Your task to perform on an android device: View the shopping cart on target.com. Search for duracell triple a on target.com, select the first entry, and add it to the cart. Image 0: 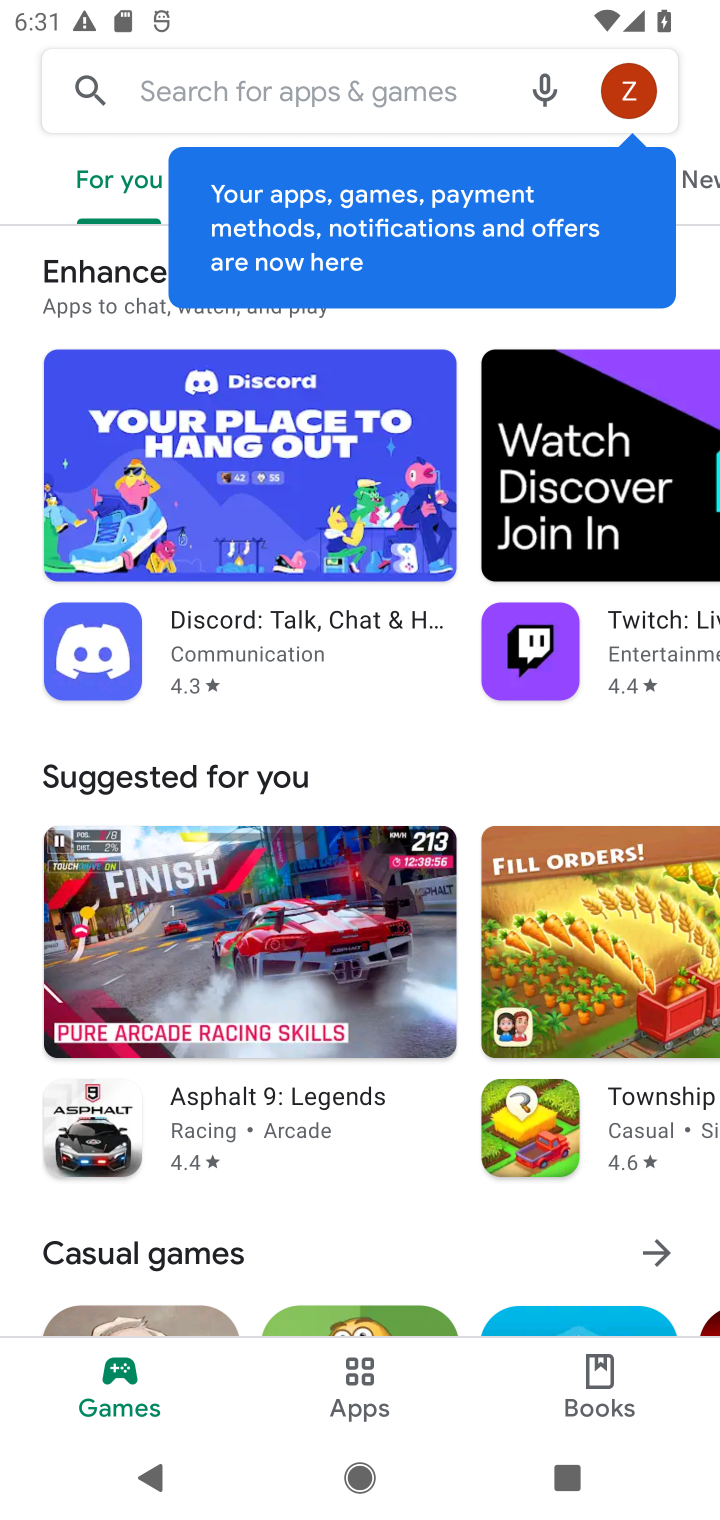
Step 0: press home button
Your task to perform on an android device: View the shopping cart on target.com. Search for duracell triple a on target.com, select the first entry, and add it to the cart. Image 1: 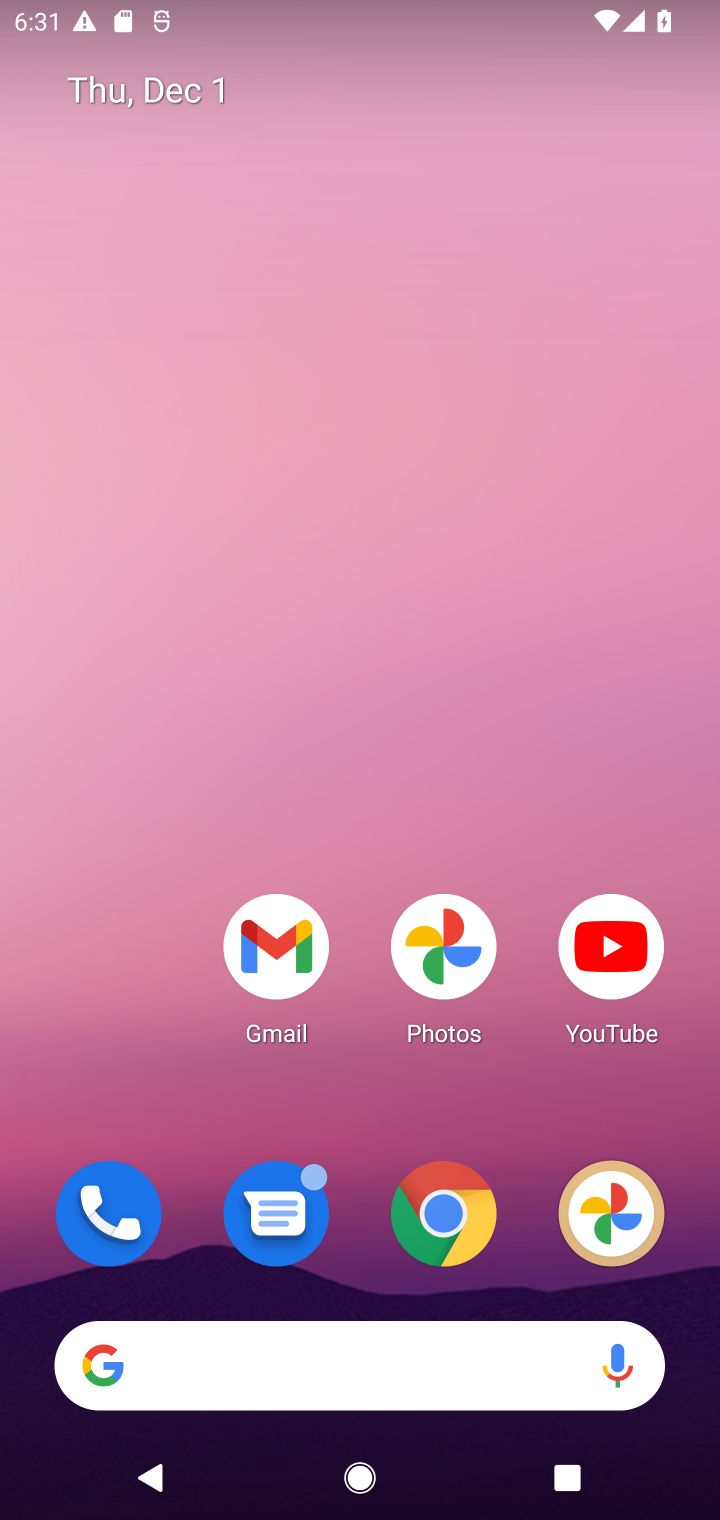
Step 1: click (371, 1372)
Your task to perform on an android device: View the shopping cart on target.com. Search for duracell triple a on target.com, select the first entry, and add it to the cart. Image 2: 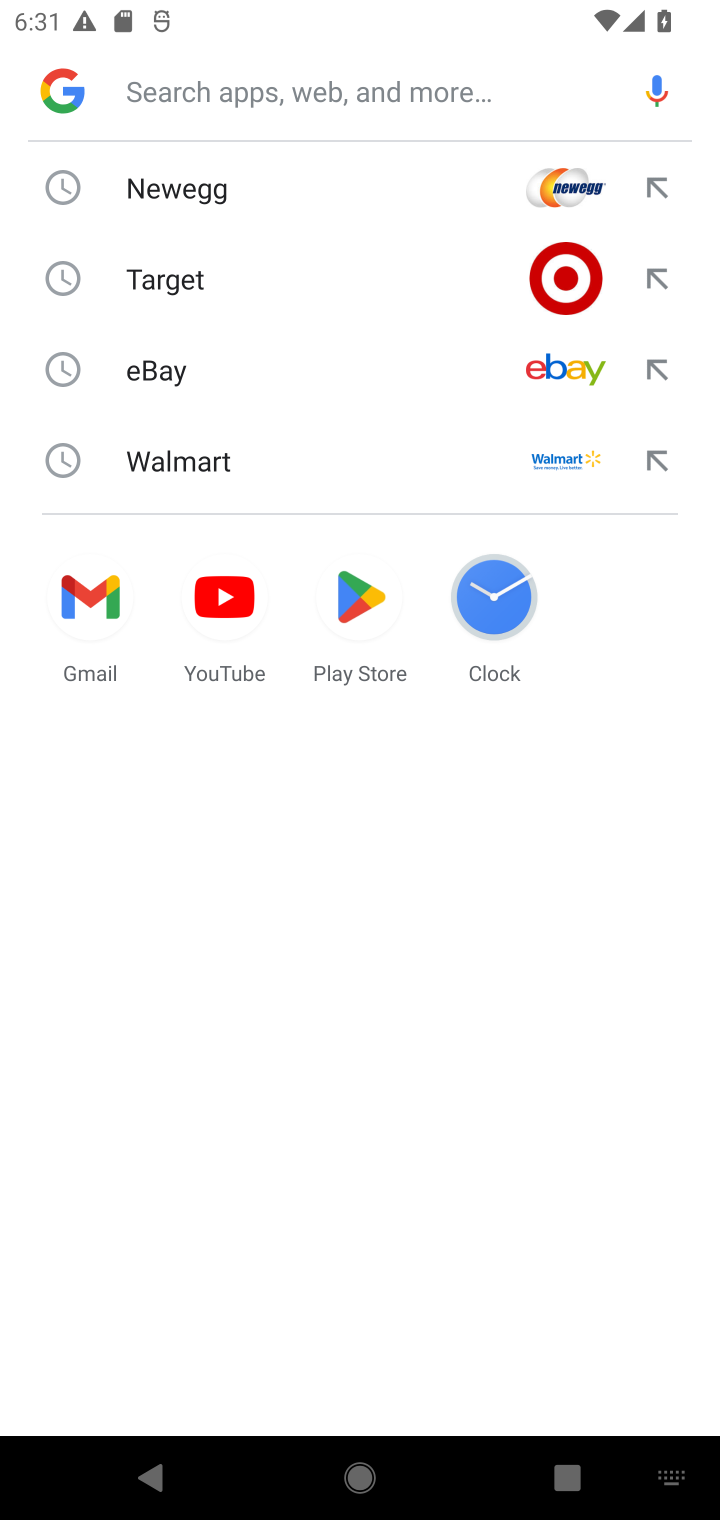
Step 2: type "target"
Your task to perform on an android device: View the shopping cart on target.com. Search for duracell triple a on target.com, select the first entry, and add it to the cart. Image 3: 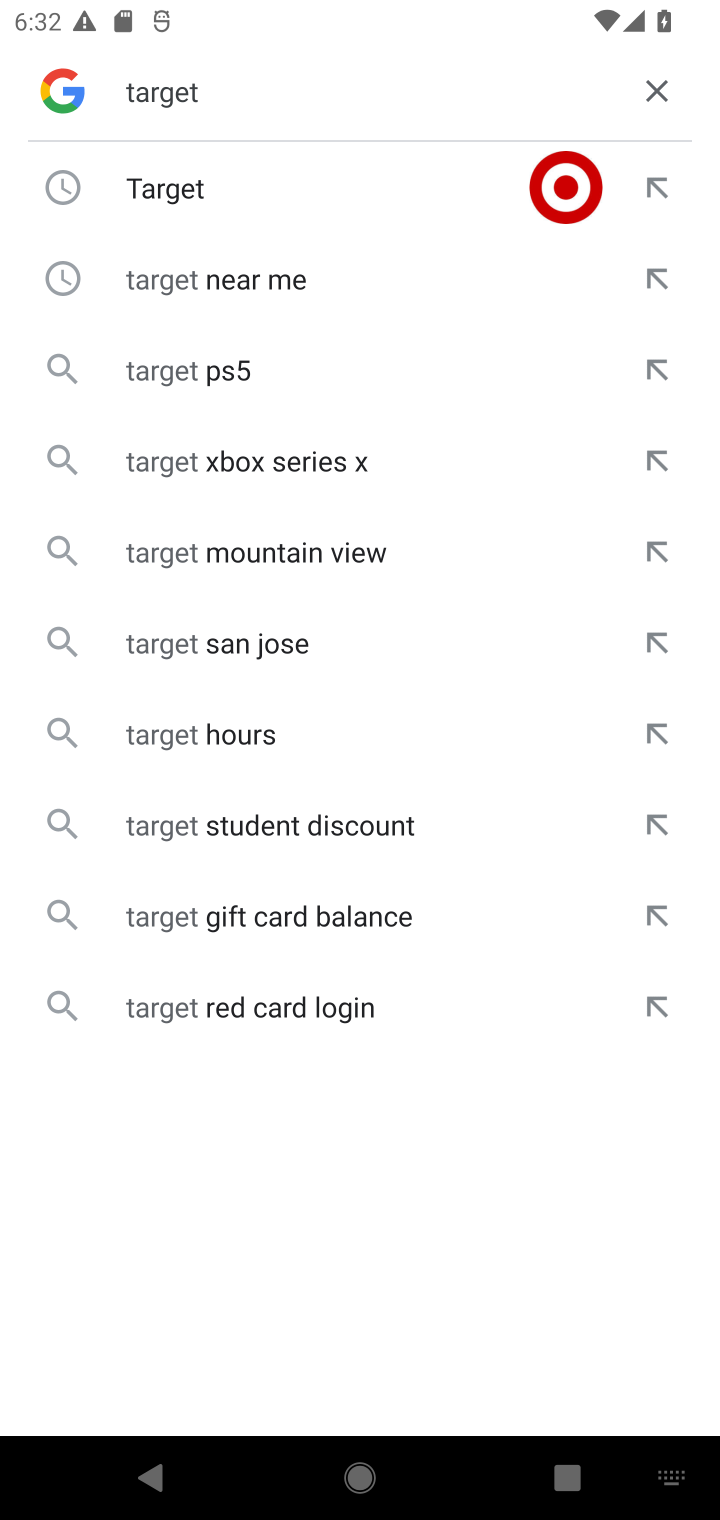
Step 3: click (216, 198)
Your task to perform on an android device: View the shopping cart on target.com. Search for duracell triple a on target.com, select the first entry, and add it to the cart. Image 4: 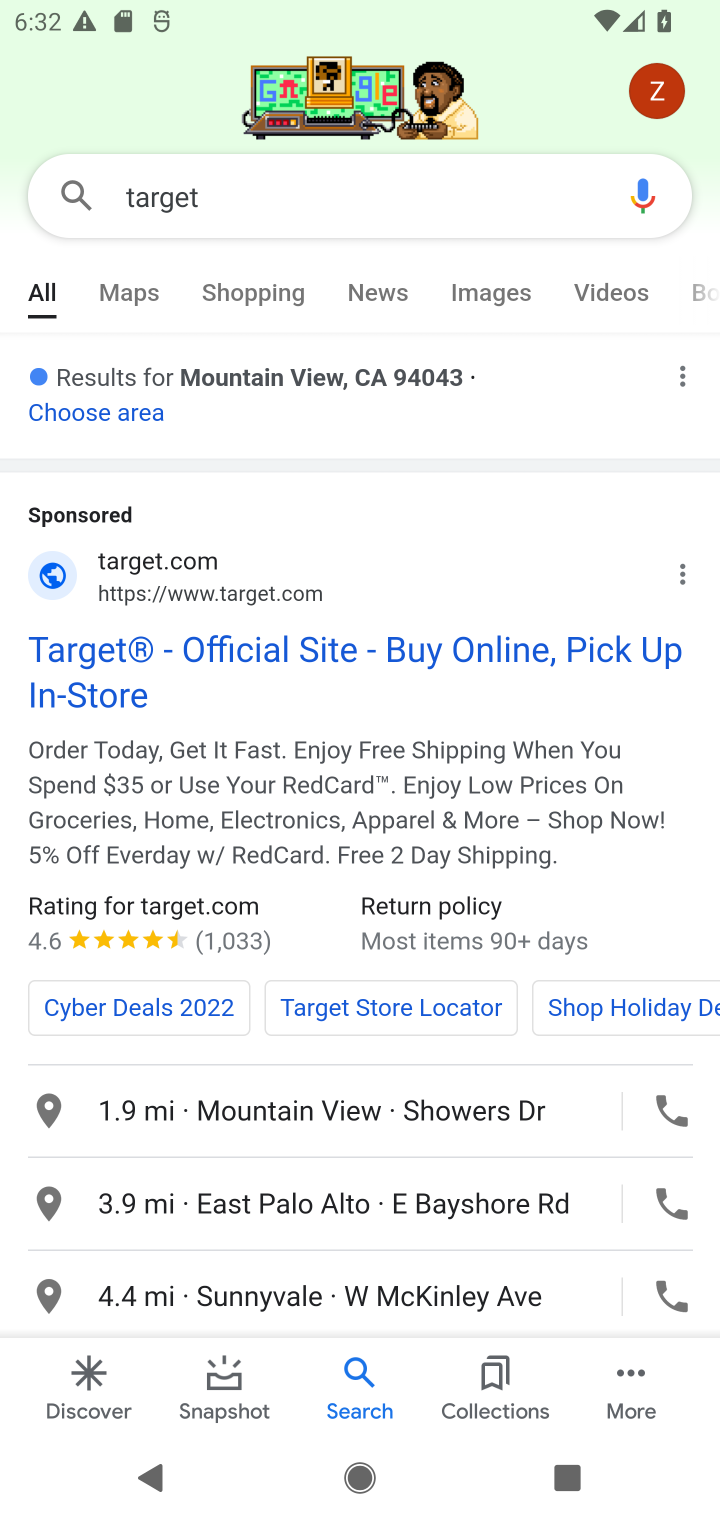
Step 4: click (252, 678)
Your task to perform on an android device: View the shopping cart on target.com. Search for duracell triple a on target.com, select the first entry, and add it to the cart. Image 5: 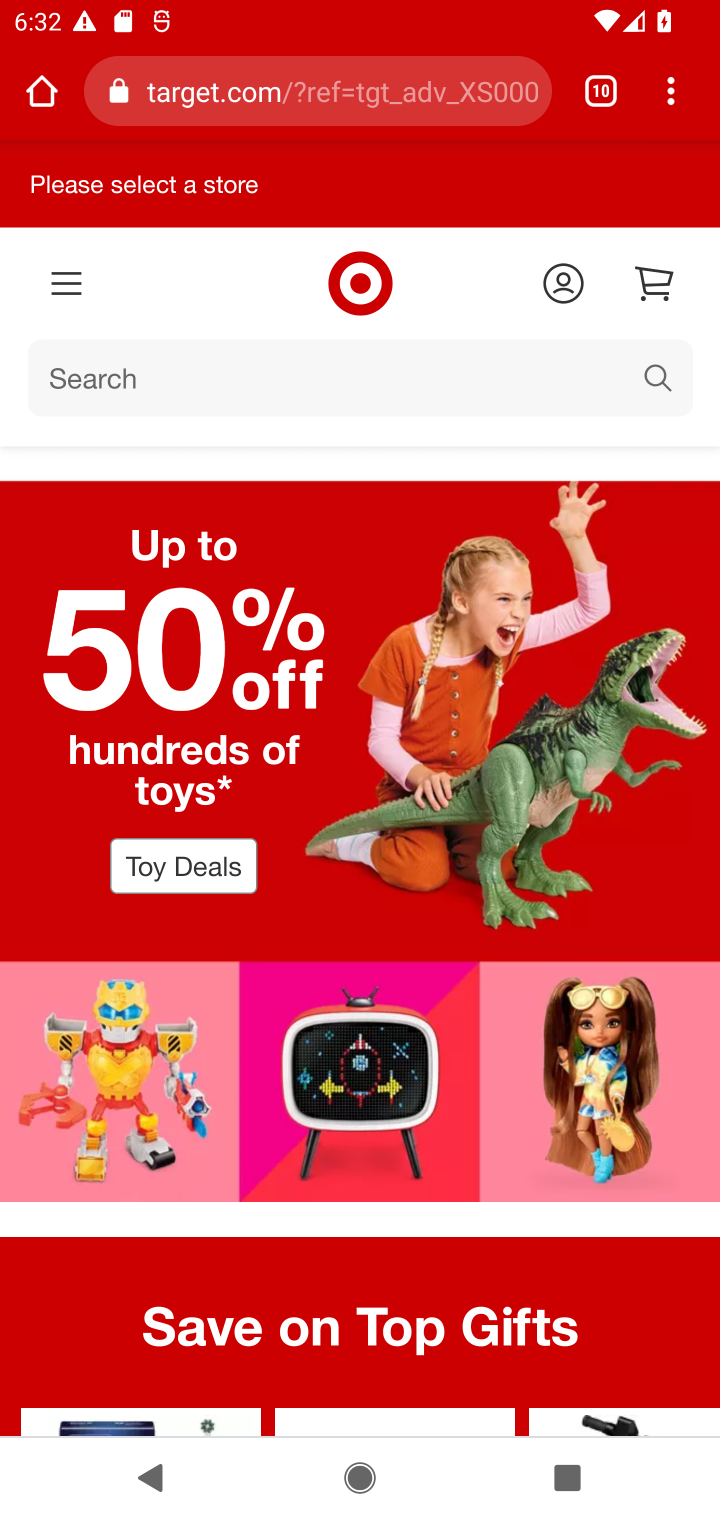
Step 5: click (206, 383)
Your task to perform on an android device: View the shopping cart on target.com. Search for duracell triple a on target.com, select the first entry, and add it to the cart. Image 6: 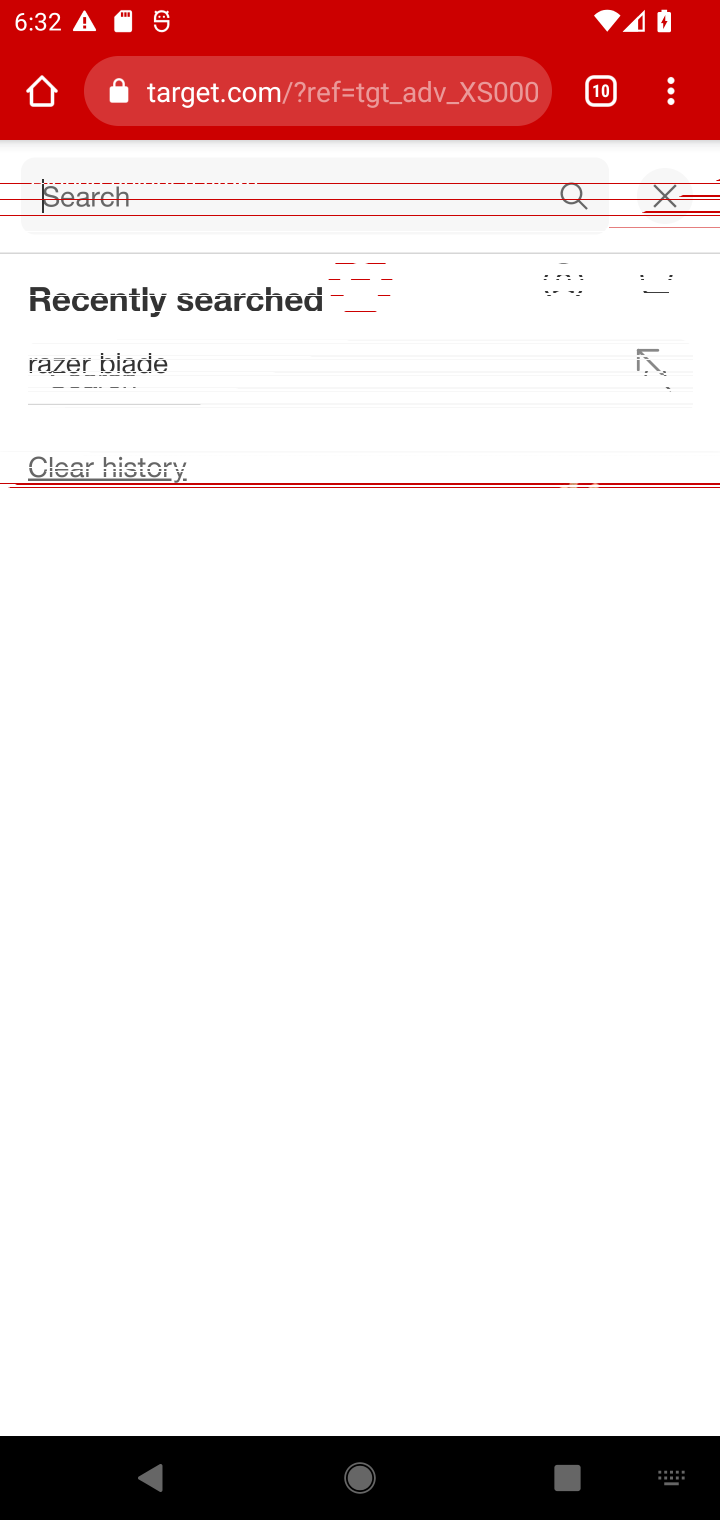
Step 6: type "duracell triple a"
Your task to perform on an android device: View the shopping cart on target.com. Search for duracell triple a on target.com, select the first entry, and add it to the cart. Image 7: 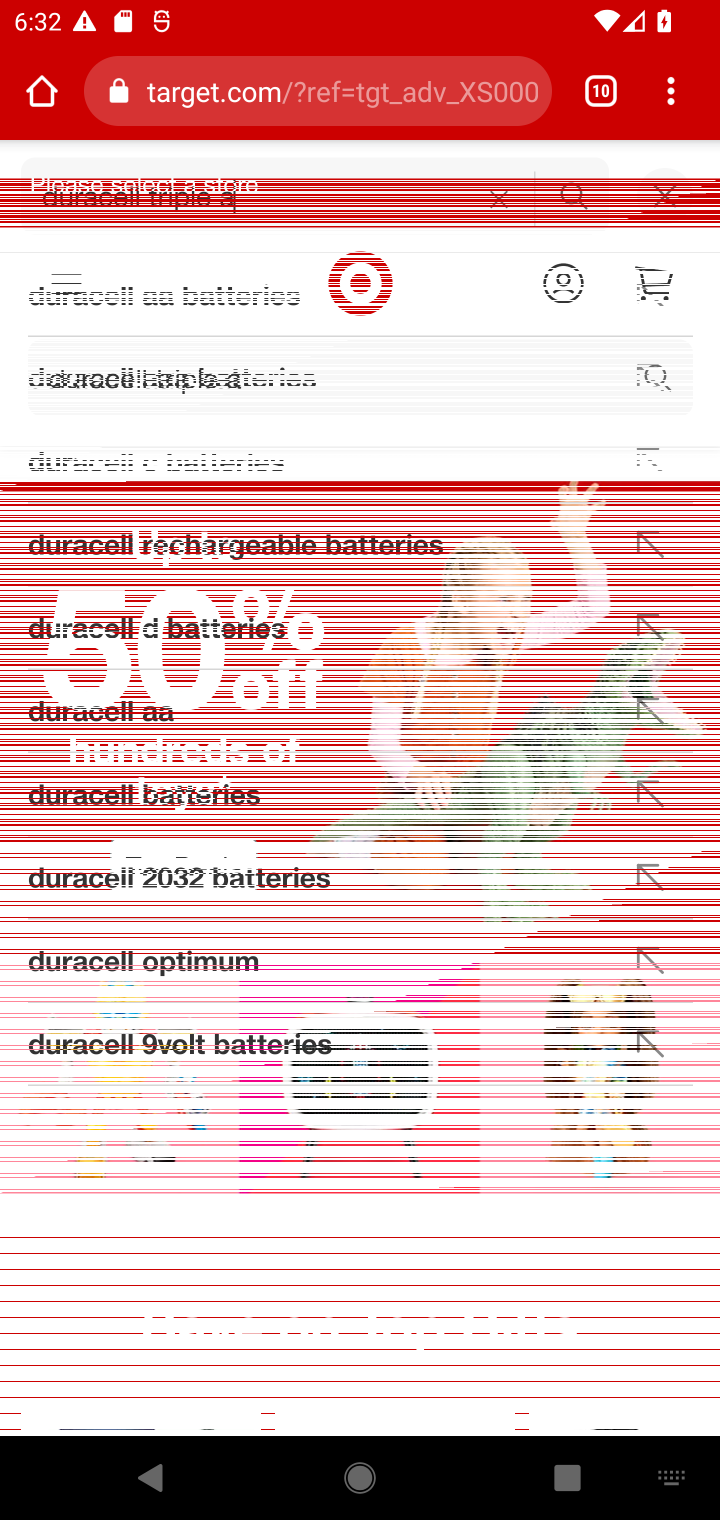
Step 7: click (247, 290)
Your task to perform on an android device: View the shopping cart on target.com. Search for duracell triple a on target.com, select the first entry, and add it to the cart. Image 8: 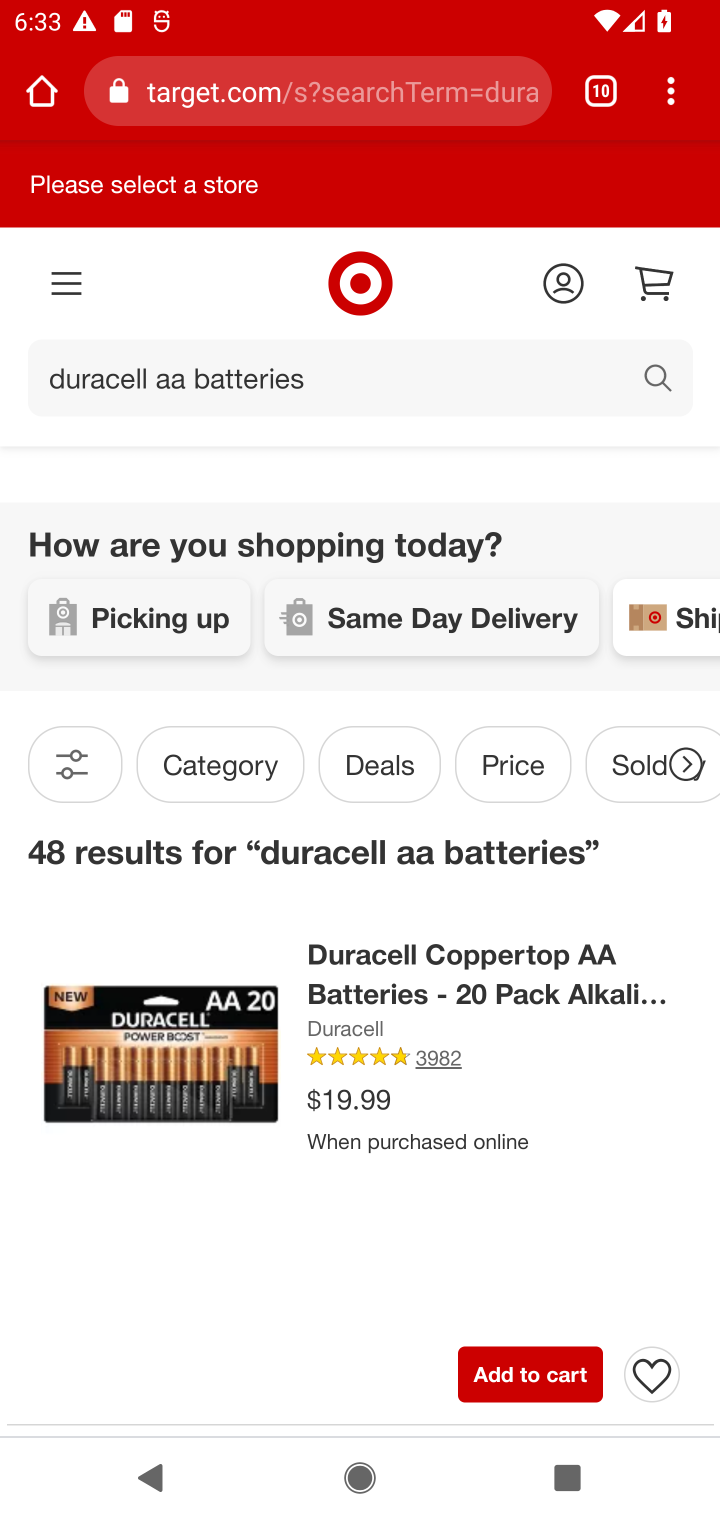
Step 8: click (527, 1381)
Your task to perform on an android device: View the shopping cart on target.com. Search for duracell triple a on target.com, select the first entry, and add it to the cart. Image 9: 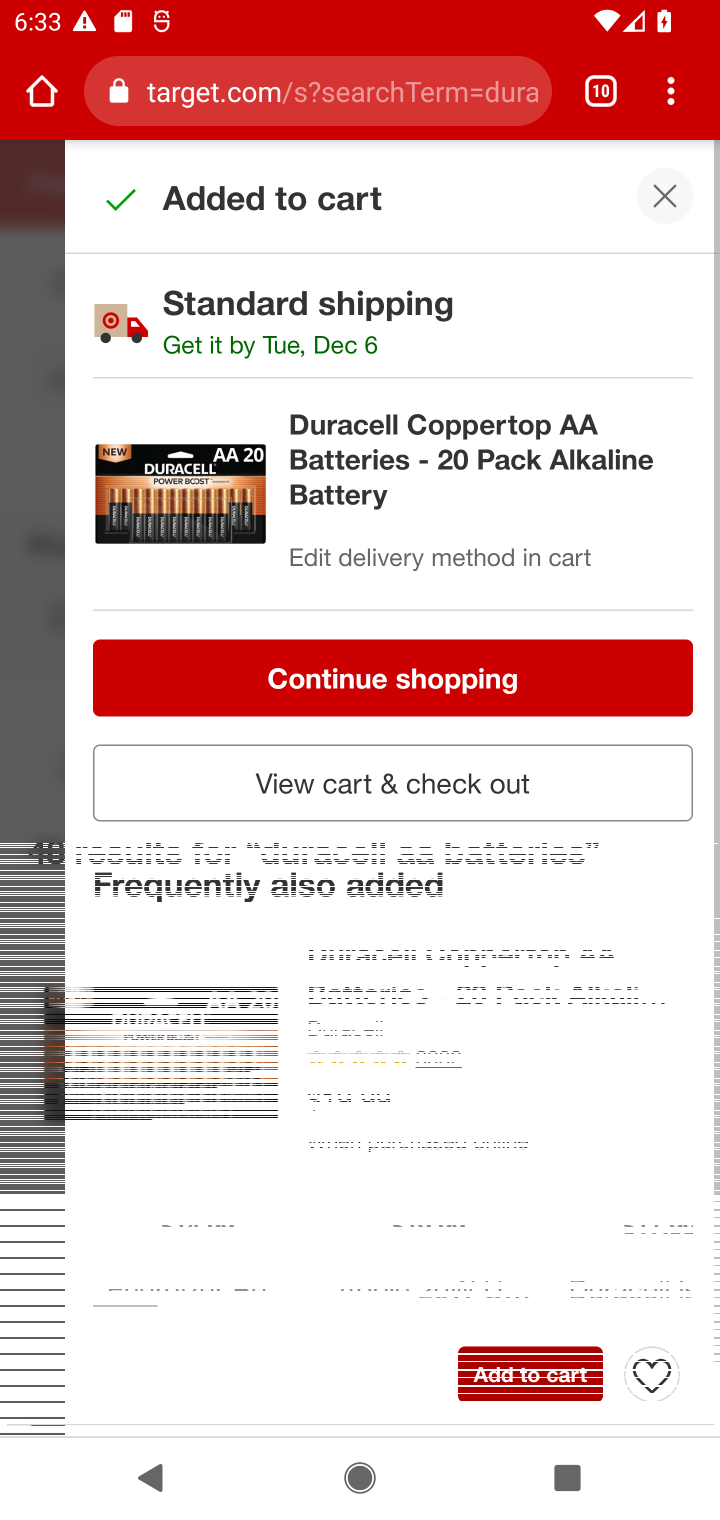
Step 9: task complete